Your task to perform on an android device: Go to accessibility settings Image 0: 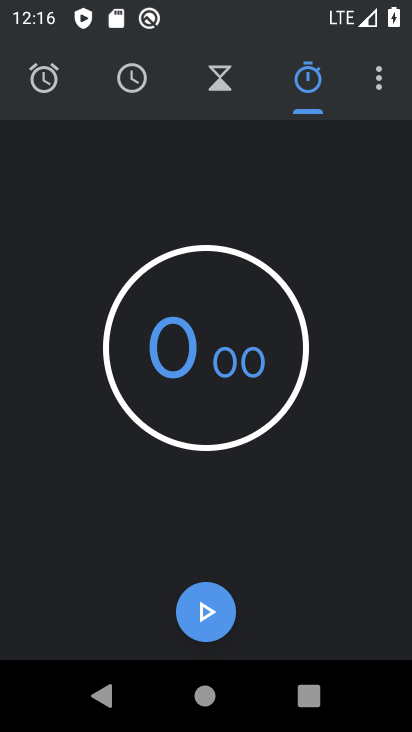
Step 0: press home button
Your task to perform on an android device: Go to accessibility settings Image 1: 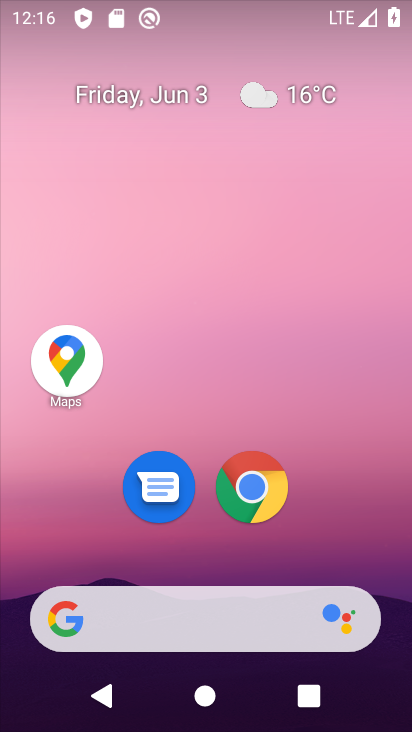
Step 1: drag from (326, 568) to (320, 137)
Your task to perform on an android device: Go to accessibility settings Image 2: 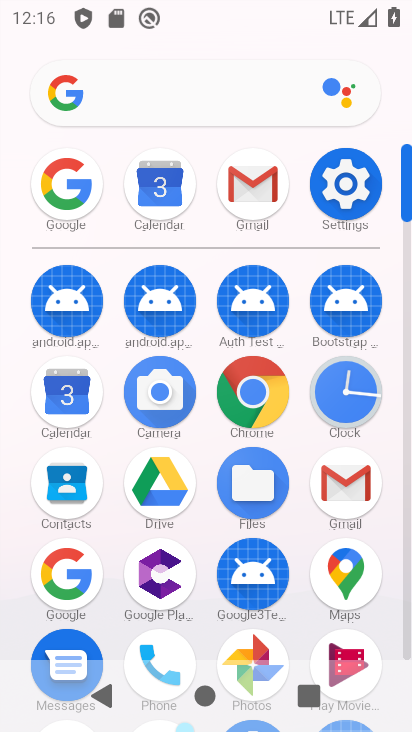
Step 2: click (337, 174)
Your task to perform on an android device: Go to accessibility settings Image 3: 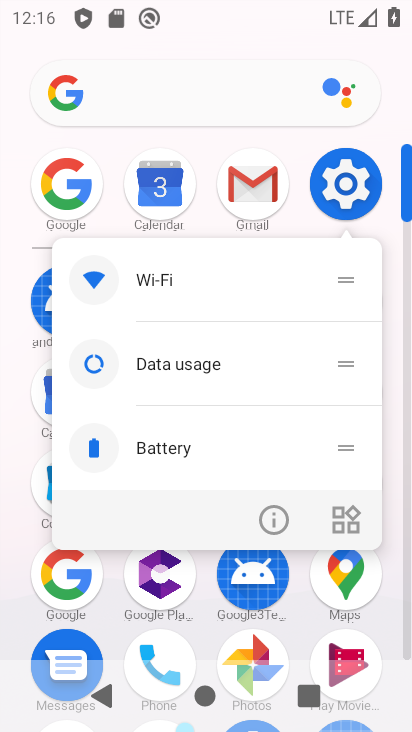
Step 3: click (348, 182)
Your task to perform on an android device: Go to accessibility settings Image 4: 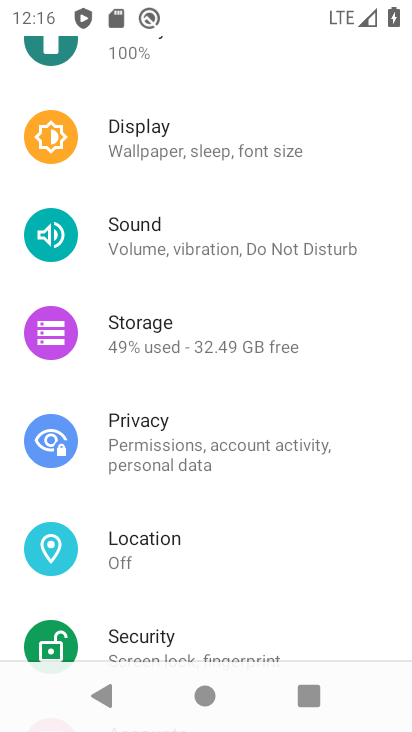
Step 4: drag from (286, 616) to (293, 181)
Your task to perform on an android device: Go to accessibility settings Image 5: 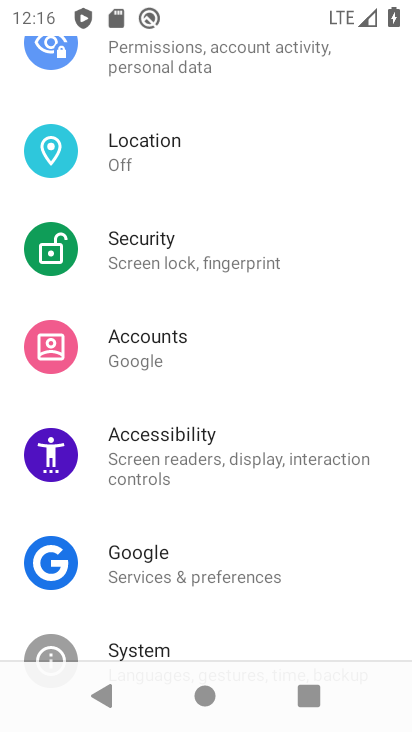
Step 5: click (143, 455)
Your task to perform on an android device: Go to accessibility settings Image 6: 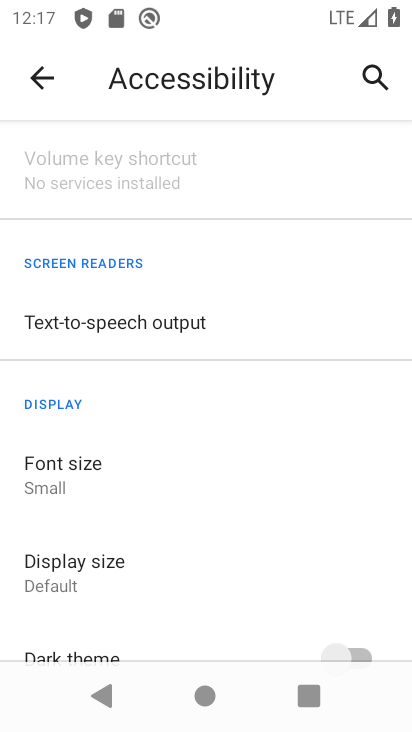
Step 6: task complete